Your task to perform on an android device: What is the news today? Image 0: 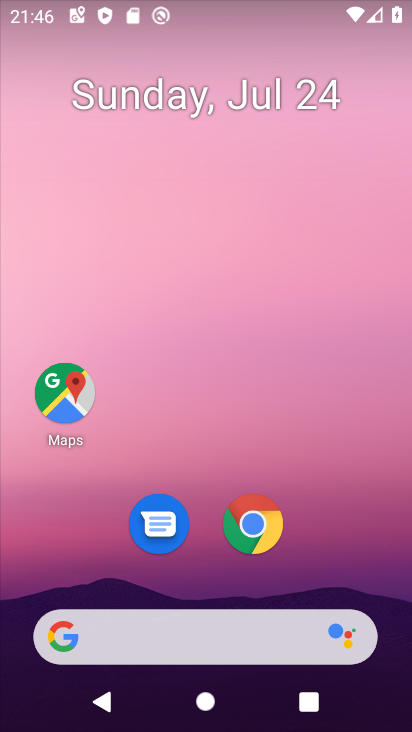
Step 0: click (135, 632)
Your task to perform on an android device: What is the news today? Image 1: 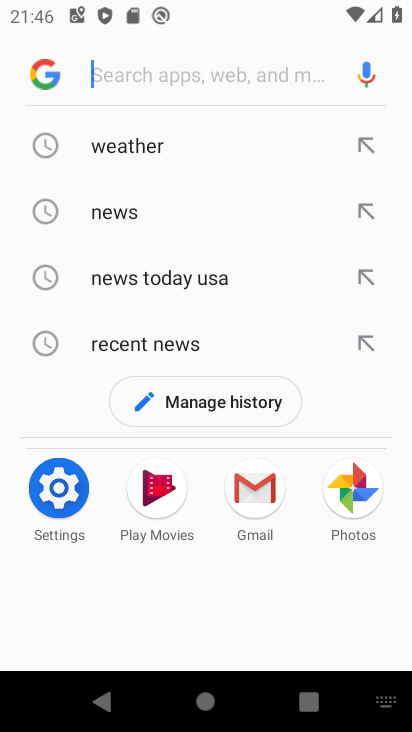
Step 1: click (120, 205)
Your task to perform on an android device: What is the news today? Image 2: 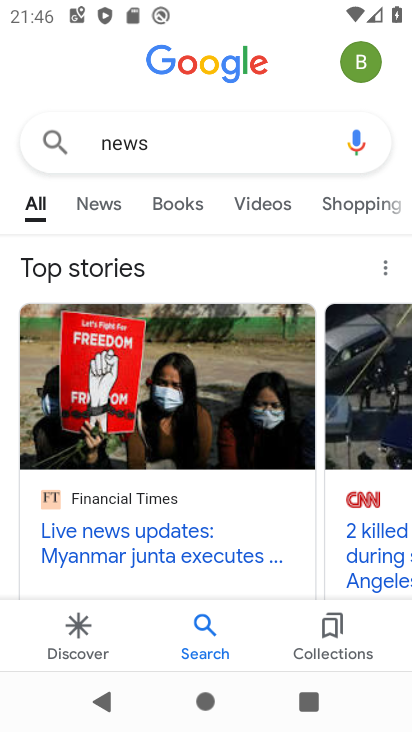
Step 2: click (111, 210)
Your task to perform on an android device: What is the news today? Image 3: 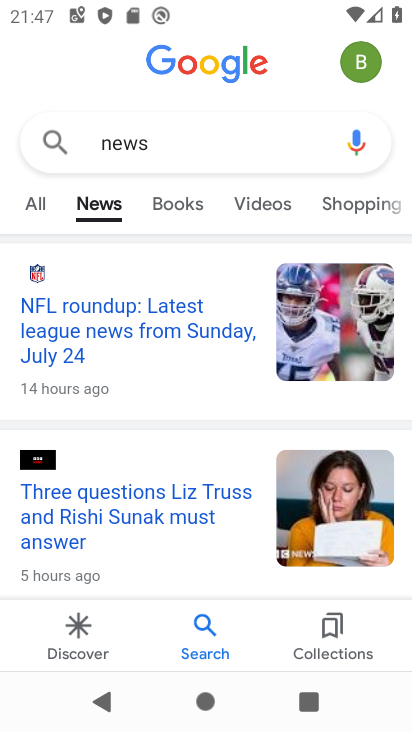
Step 3: task complete